Your task to perform on an android device: move an email to a new category in the gmail app Image 0: 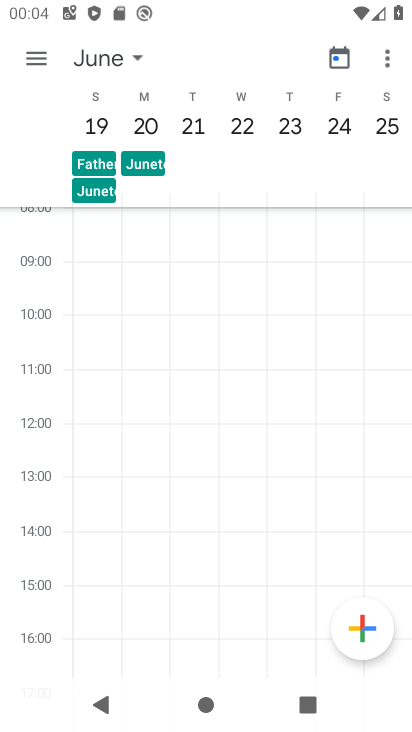
Step 0: press home button
Your task to perform on an android device: move an email to a new category in the gmail app Image 1: 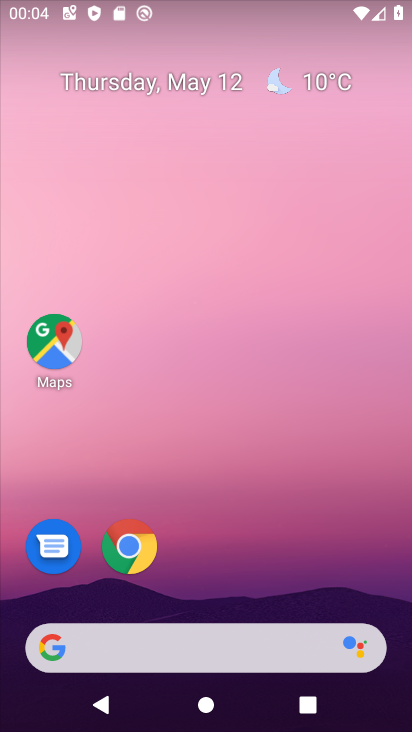
Step 1: drag from (120, 612) to (125, 266)
Your task to perform on an android device: move an email to a new category in the gmail app Image 2: 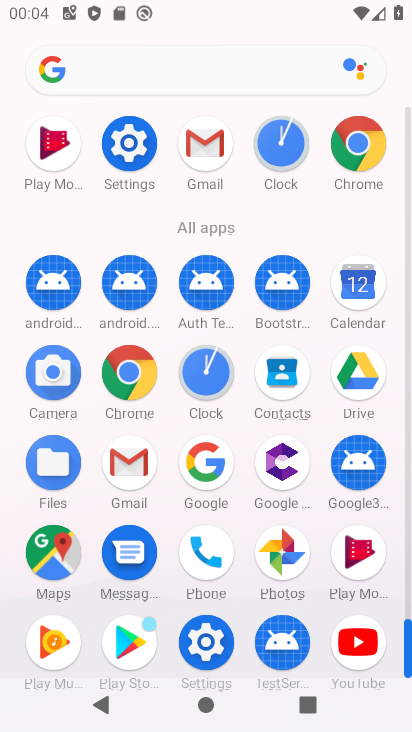
Step 2: click (204, 150)
Your task to perform on an android device: move an email to a new category in the gmail app Image 3: 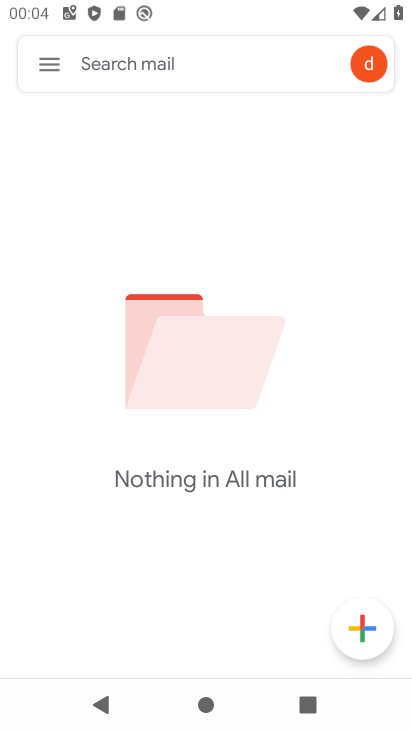
Step 3: click (43, 71)
Your task to perform on an android device: move an email to a new category in the gmail app Image 4: 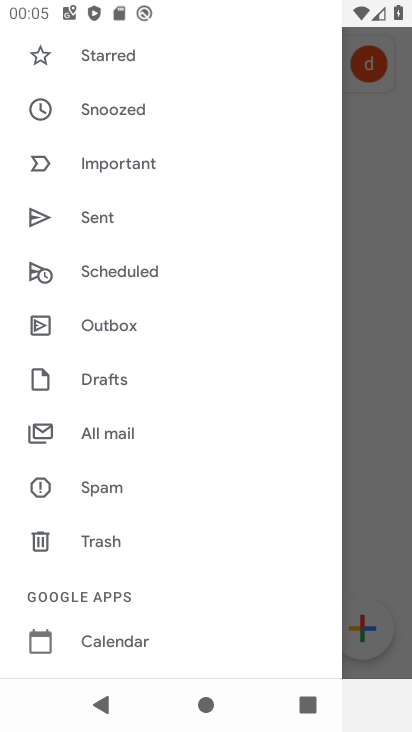
Step 4: click (106, 433)
Your task to perform on an android device: move an email to a new category in the gmail app Image 5: 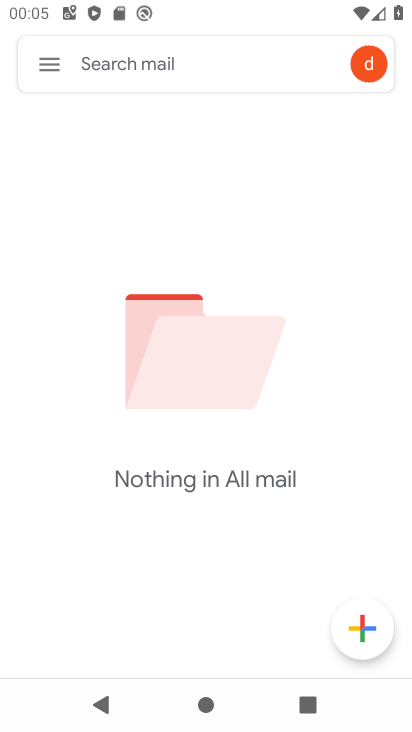
Step 5: task complete